Your task to perform on an android device: create a new album in the google photos Image 0: 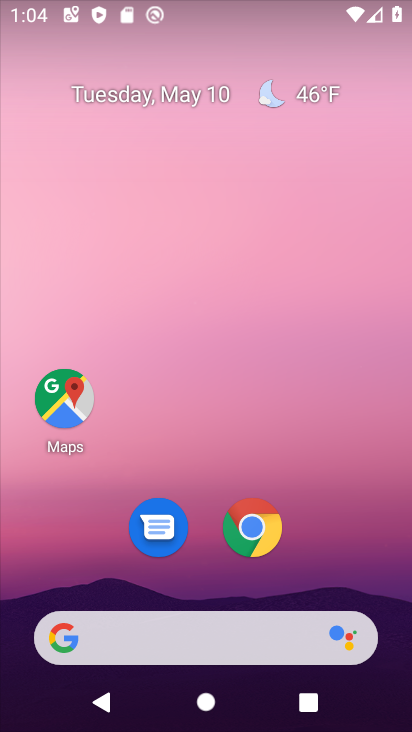
Step 0: drag from (335, 595) to (347, 58)
Your task to perform on an android device: create a new album in the google photos Image 1: 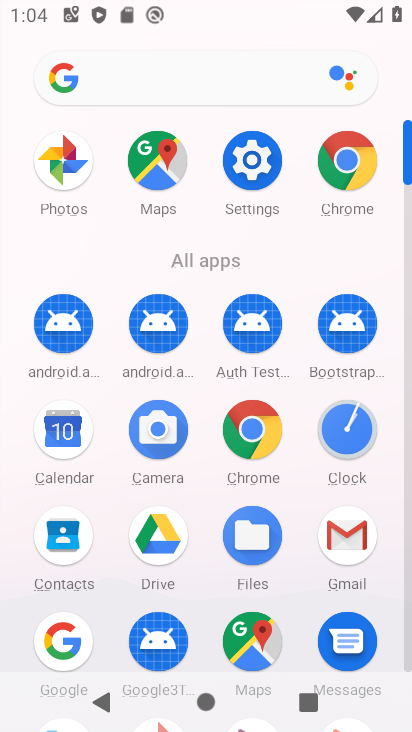
Step 1: click (58, 164)
Your task to perform on an android device: create a new album in the google photos Image 2: 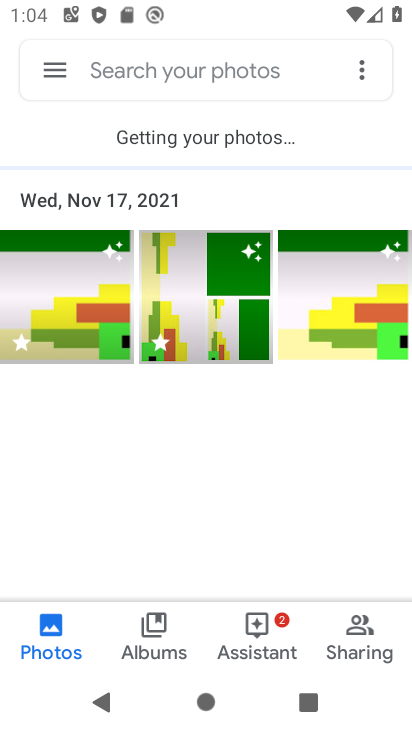
Step 2: click (42, 280)
Your task to perform on an android device: create a new album in the google photos Image 3: 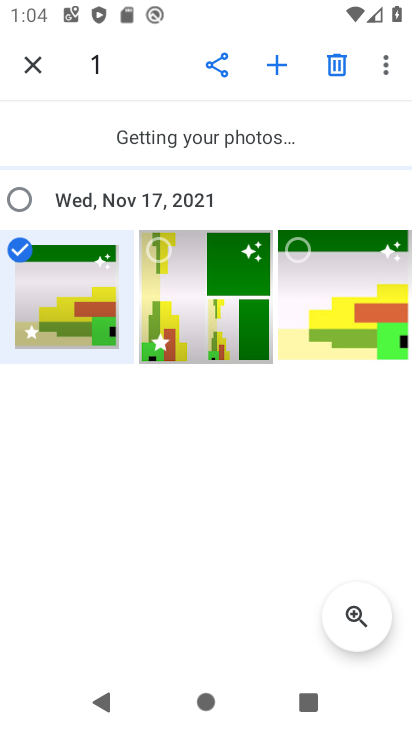
Step 3: click (267, 69)
Your task to perform on an android device: create a new album in the google photos Image 4: 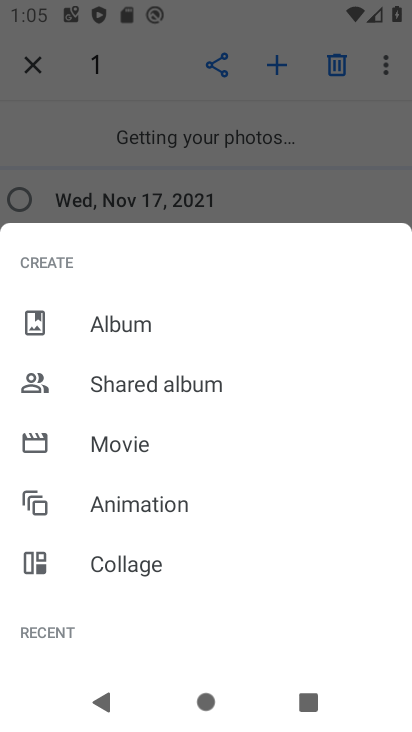
Step 4: click (112, 327)
Your task to perform on an android device: create a new album in the google photos Image 5: 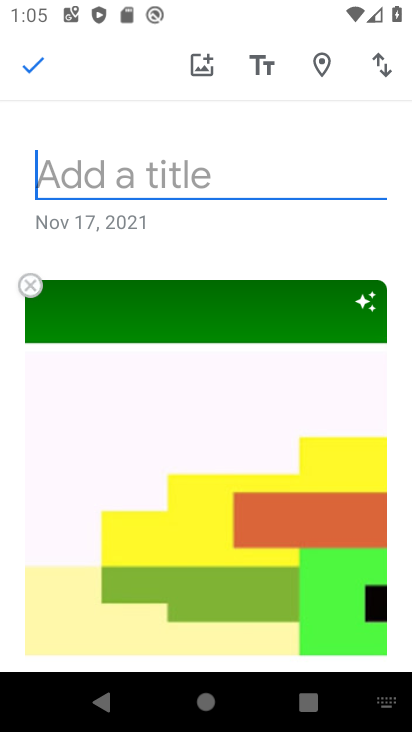
Step 5: click (87, 183)
Your task to perform on an android device: create a new album in the google photos Image 6: 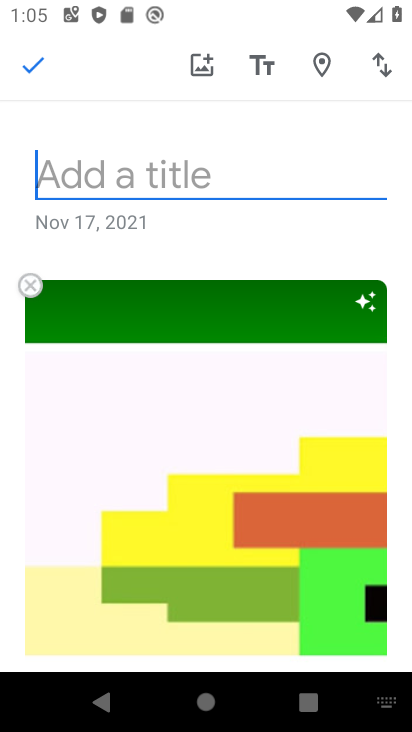
Step 6: type "new 1"
Your task to perform on an android device: create a new album in the google photos Image 7: 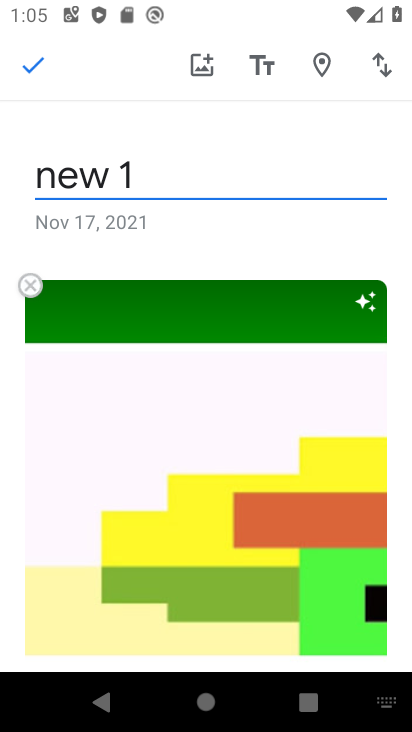
Step 7: click (30, 74)
Your task to perform on an android device: create a new album in the google photos Image 8: 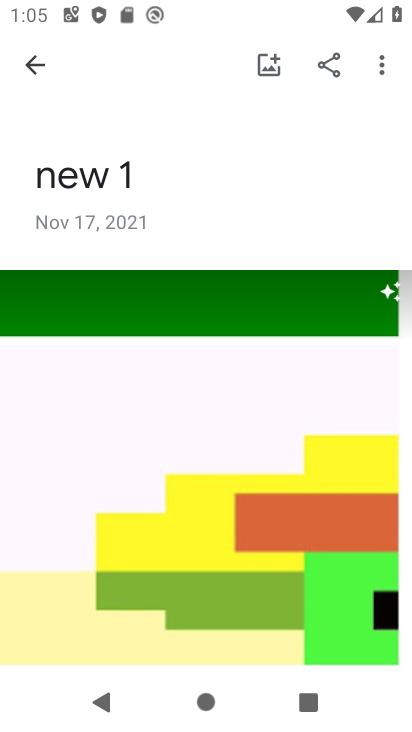
Step 8: task complete